Your task to perform on an android device: check google app version Image 0: 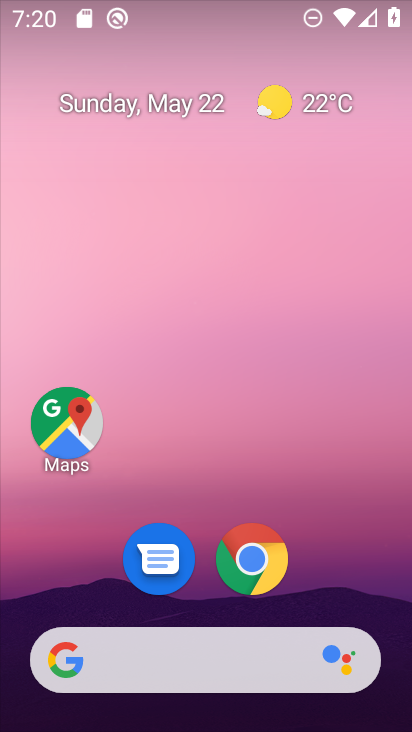
Step 0: drag from (300, 705) to (187, 77)
Your task to perform on an android device: check google app version Image 1: 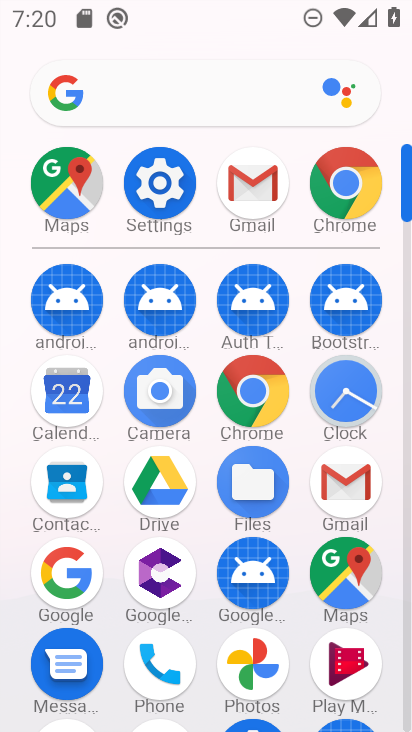
Step 1: click (347, 203)
Your task to perform on an android device: check google app version Image 2: 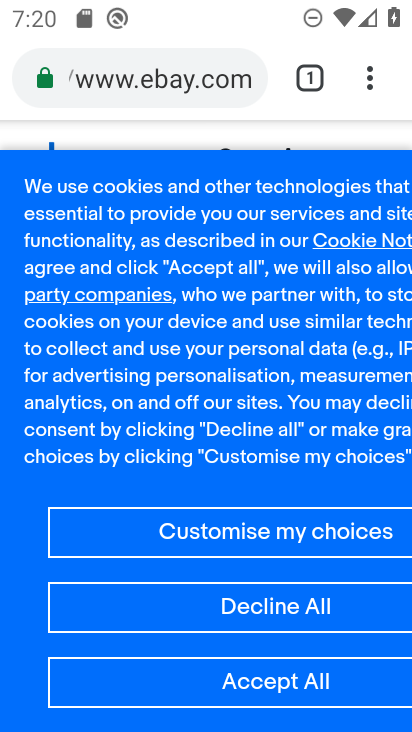
Step 2: click (360, 88)
Your task to perform on an android device: check google app version Image 3: 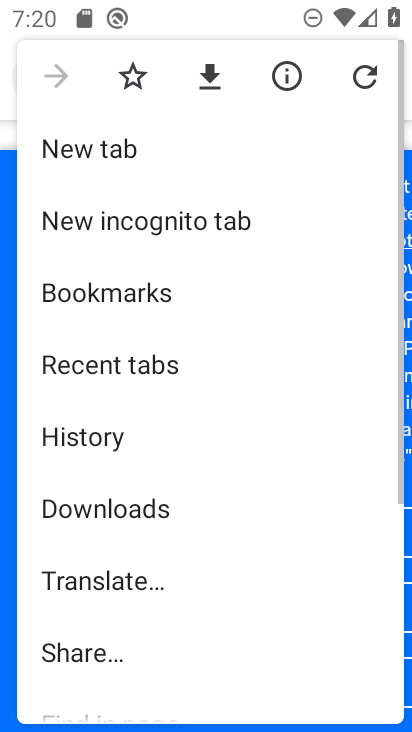
Step 3: drag from (161, 582) to (157, 164)
Your task to perform on an android device: check google app version Image 4: 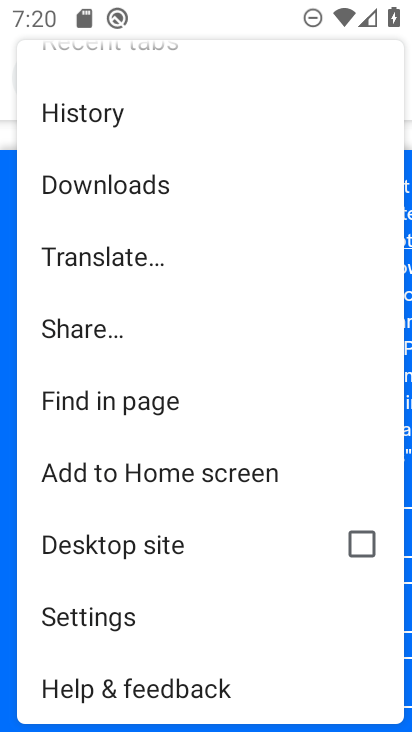
Step 4: click (109, 621)
Your task to perform on an android device: check google app version Image 5: 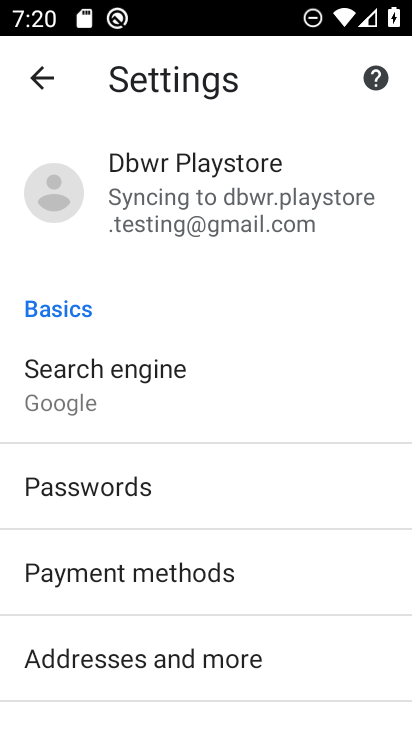
Step 5: drag from (114, 628) to (186, 393)
Your task to perform on an android device: check google app version Image 6: 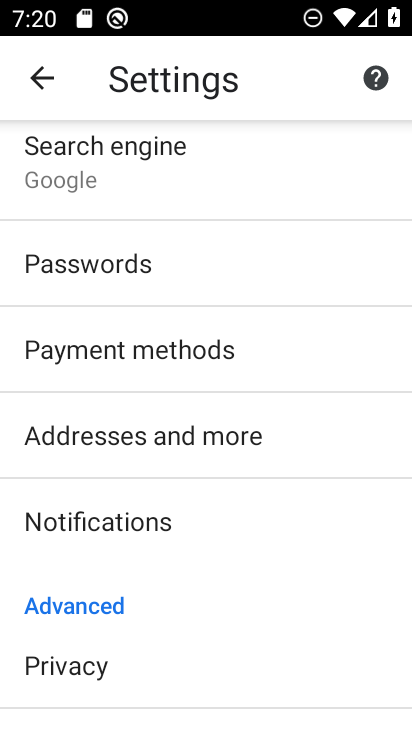
Step 6: drag from (220, 633) to (207, 323)
Your task to perform on an android device: check google app version Image 7: 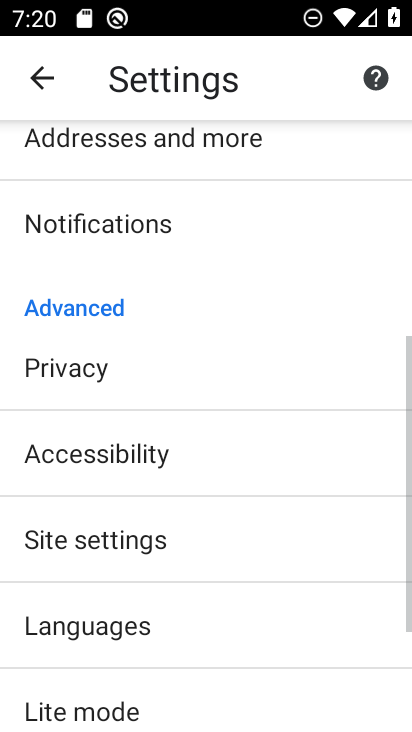
Step 7: drag from (145, 689) to (153, 441)
Your task to perform on an android device: check google app version Image 8: 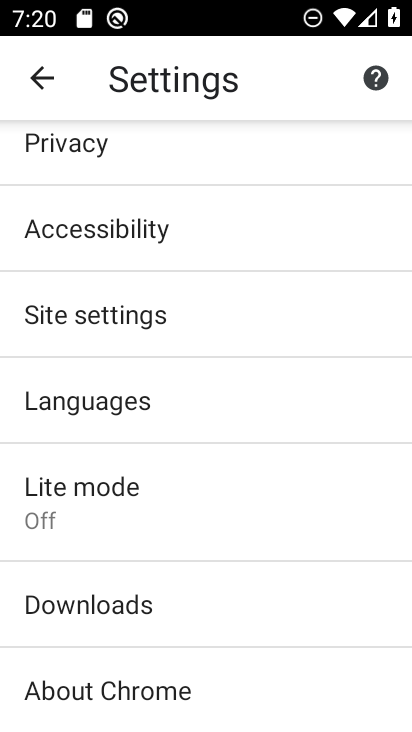
Step 8: click (94, 677)
Your task to perform on an android device: check google app version Image 9: 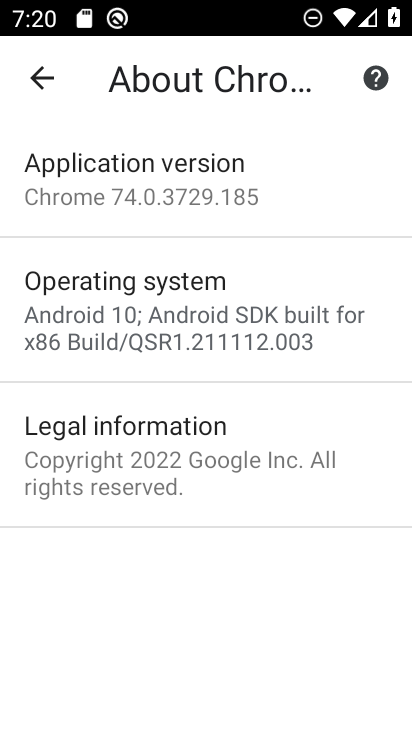
Step 9: click (136, 205)
Your task to perform on an android device: check google app version Image 10: 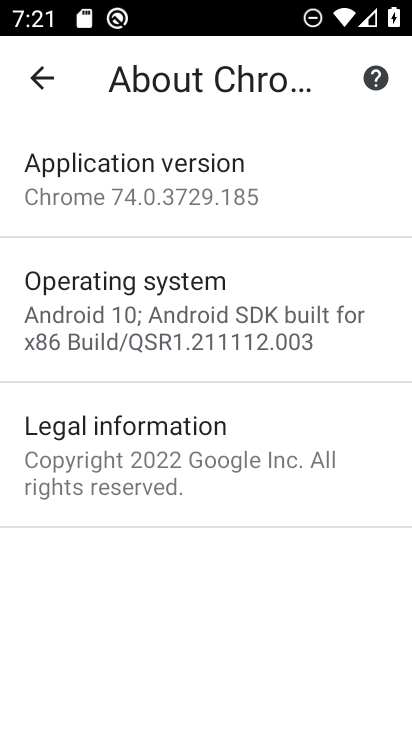
Step 10: task complete